Your task to perform on an android device: Go to settings Image 0: 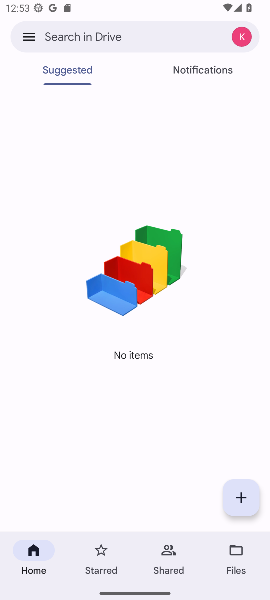
Step 0: press home button
Your task to perform on an android device: Go to settings Image 1: 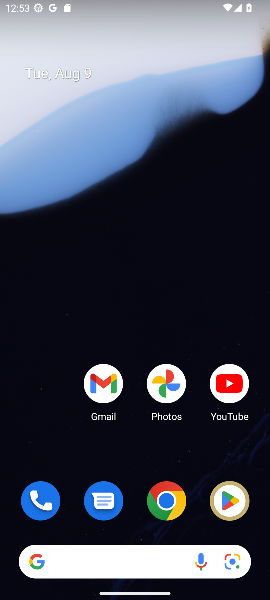
Step 1: drag from (135, 458) to (149, 96)
Your task to perform on an android device: Go to settings Image 2: 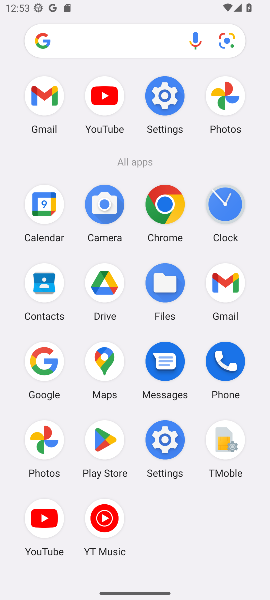
Step 2: click (155, 94)
Your task to perform on an android device: Go to settings Image 3: 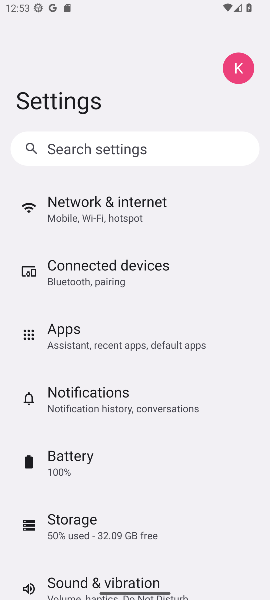
Step 3: task complete